Your task to perform on an android device: star an email in the gmail app Image 0: 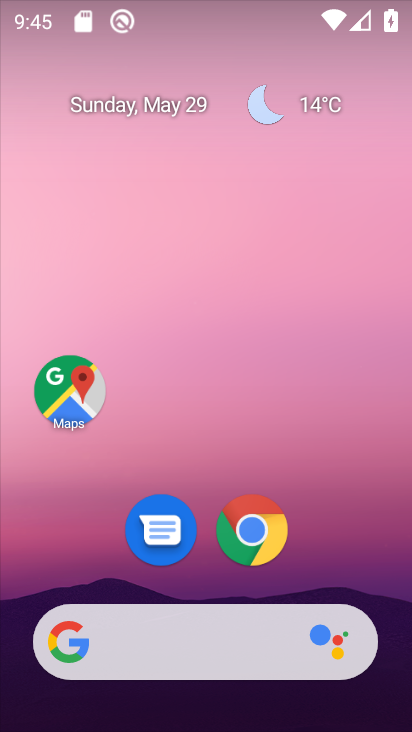
Step 0: drag from (207, 33) to (151, 74)
Your task to perform on an android device: star an email in the gmail app Image 1: 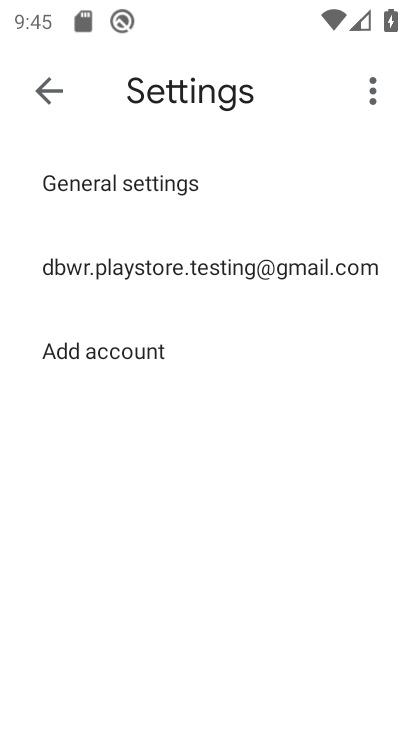
Step 1: press home button
Your task to perform on an android device: star an email in the gmail app Image 2: 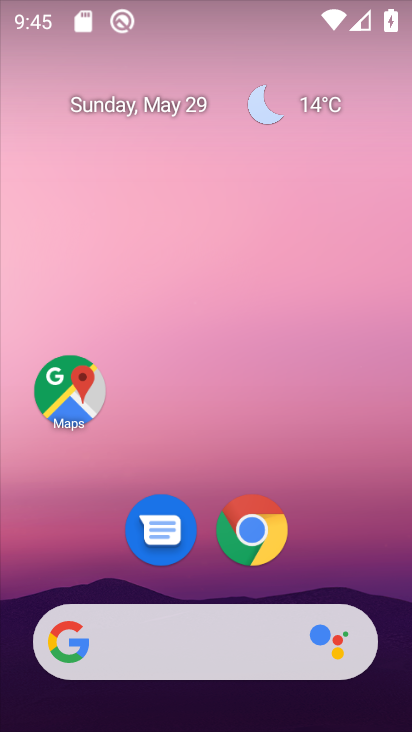
Step 2: drag from (212, 616) to (190, 6)
Your task to perform on an android device: star an email in the gmail app Image 3: 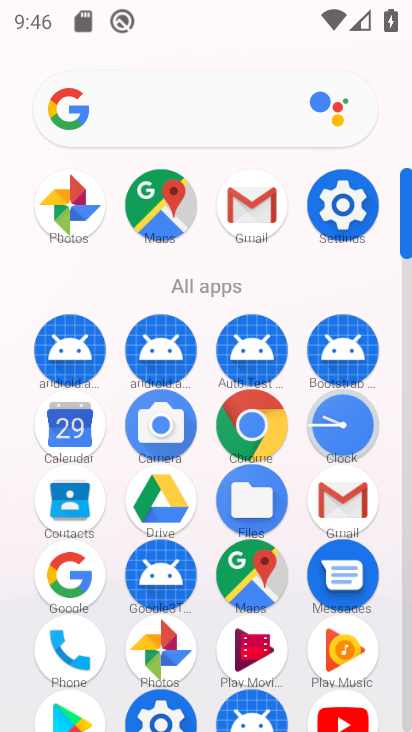
Step 3: click (264, 222)
Your task to perform on an android device: star an email in the gmail app Image 4: 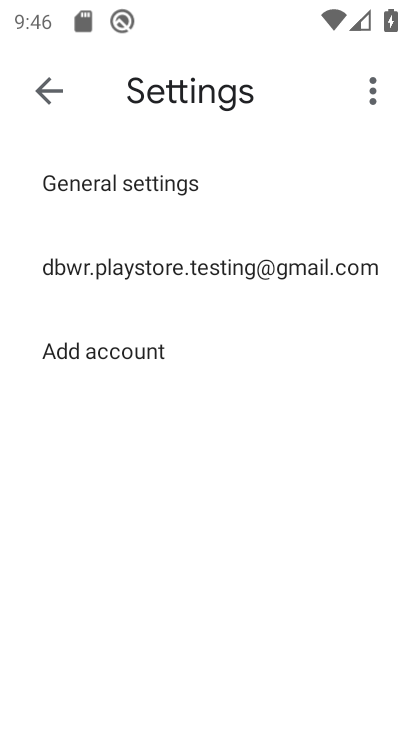
Step 4: click (37, 96)
Your task to perform on an android device: star an email in the gmail app Image 5: 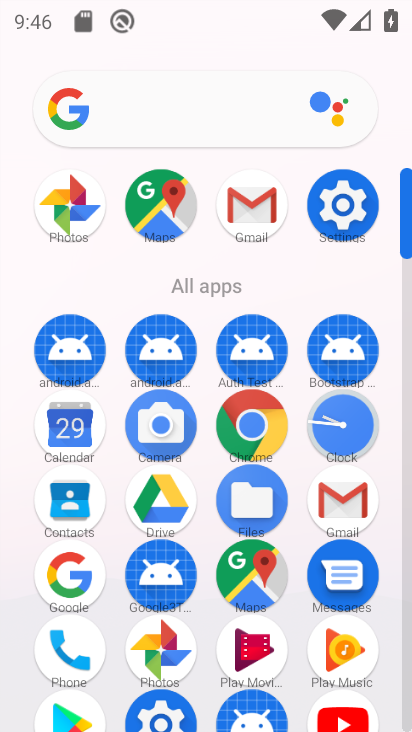
Step 5: click (240, 209)
Your task to perform on an android device: star an email in the gmail app Image 6: 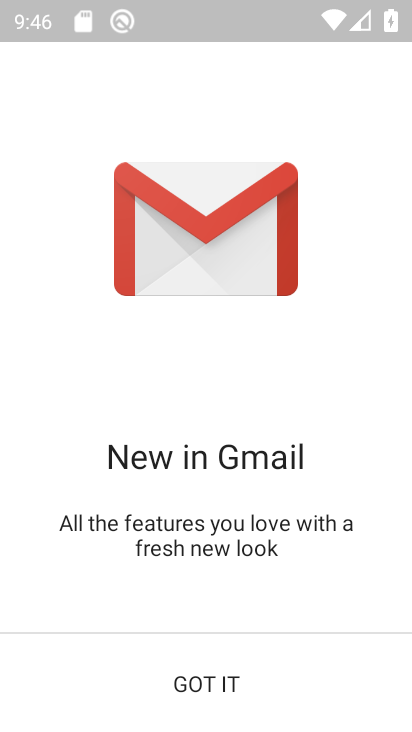
Step 6: click (222, 658)
Your task to perform on an android device: star an email in the gmail app Image 7: 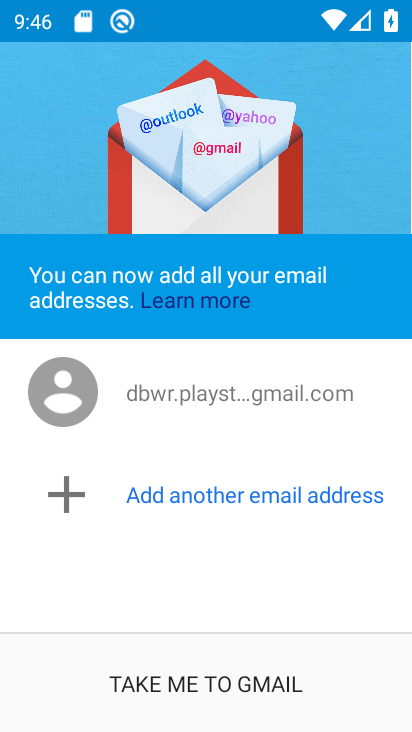
Step 7: click (222, 658)
Your task to perform on an android device: star an email in the gmail app Image 8: 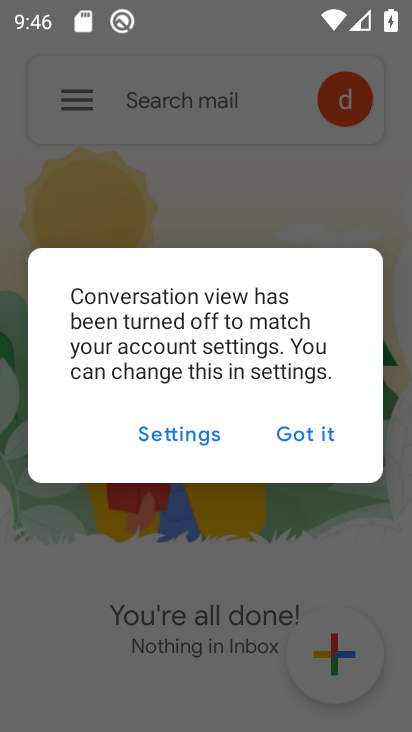
Step 8: click (307, 439)
Your task to perform on an android device: star an email in the gmail app Image 9: 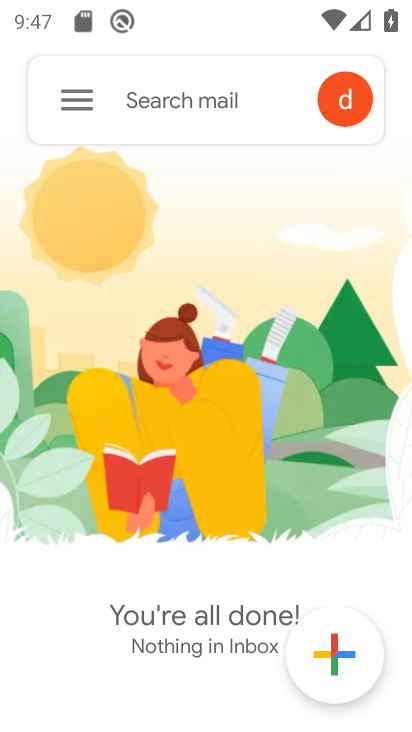
Step 9: click (65, 99)
Your task to perform on an android device: star an email in the gmail app Image 10: 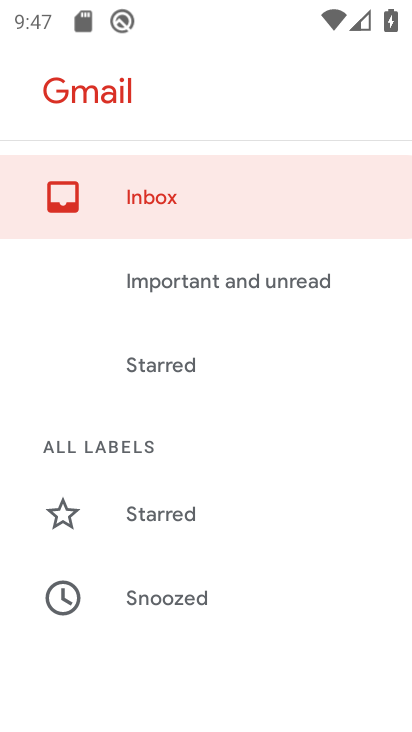
Step 10: drag from (167, 560) to (170, 158)
Your task to perform on an android device: star an email in the gmail app Image 11: 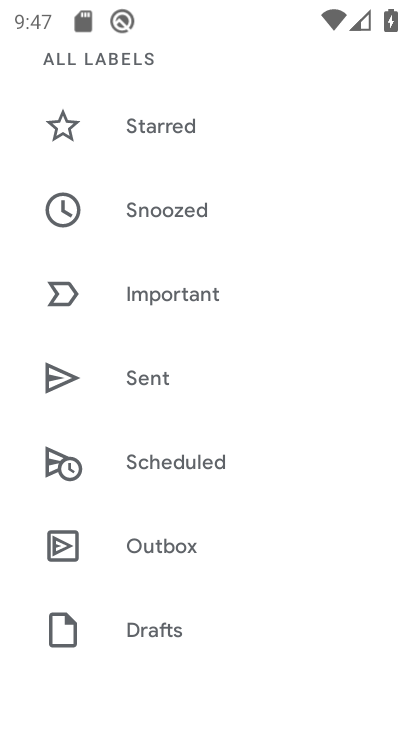
Step 11: drag from (176, 516) to (85, 0)
Your task to perform on an android device: star an email in the gmail app Image 12: 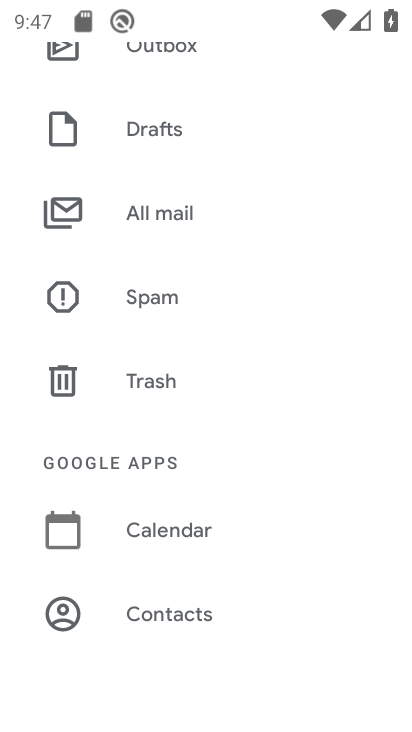
Step 12: click (123, 220)
Your task to perform on an android device: star an email in the gmail app Image 13: 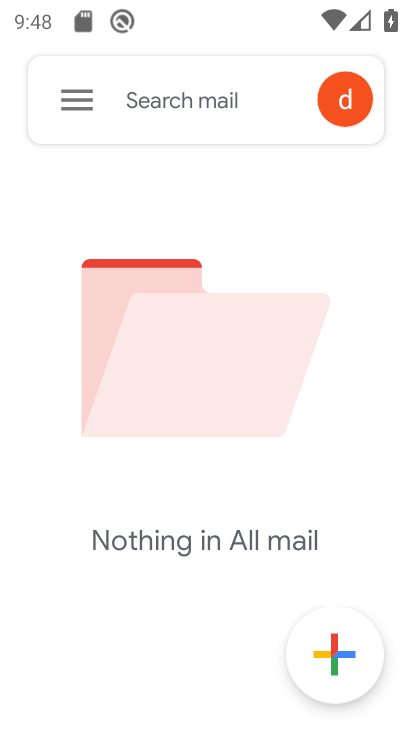
Step 13: click (80, 98)
Your task to perform on an android device: star an email in the gmail app Image 14: 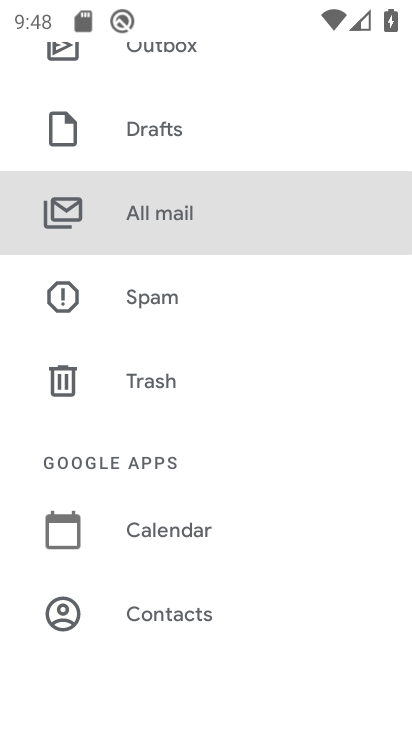
Step 14: click (194, 202)
Your task to perform on an android device: star an email in the gmail app Image 15: 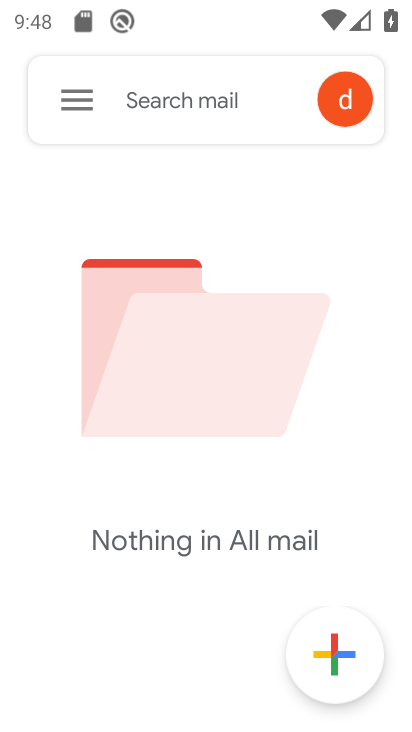
Step 15: task complete